Your task to perform on an android device: Is it going to rain tomorrow? Image 0: 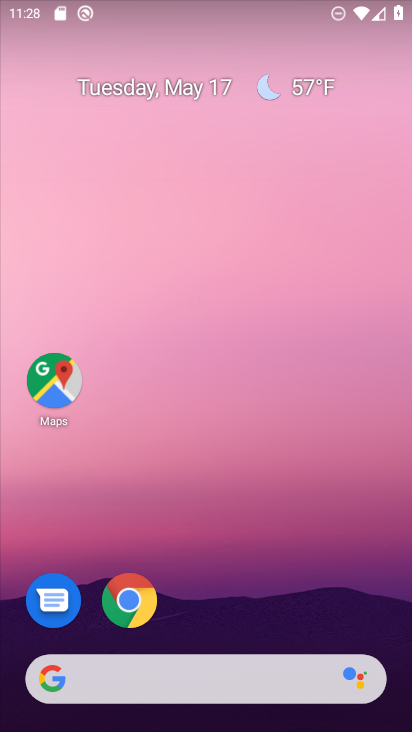
Step 0: drag from (273, 641) to (139, 101)
Your task to perform on an android device: Is it going to rain tomorrow? Image 1: 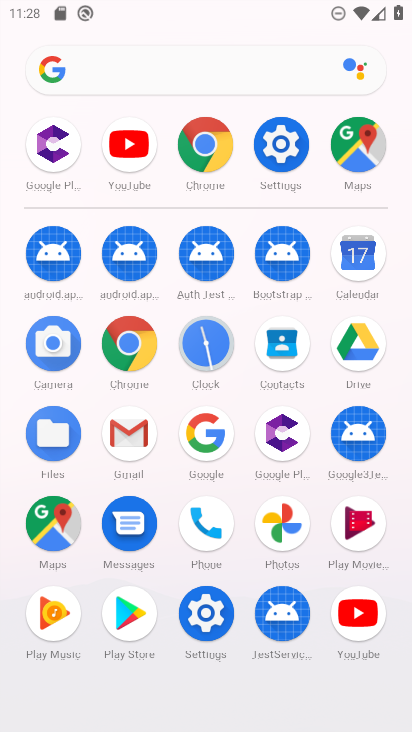
Step 1: press back button
Your task to perform on an android device: Is it going to rain tomorrow? Image 2: 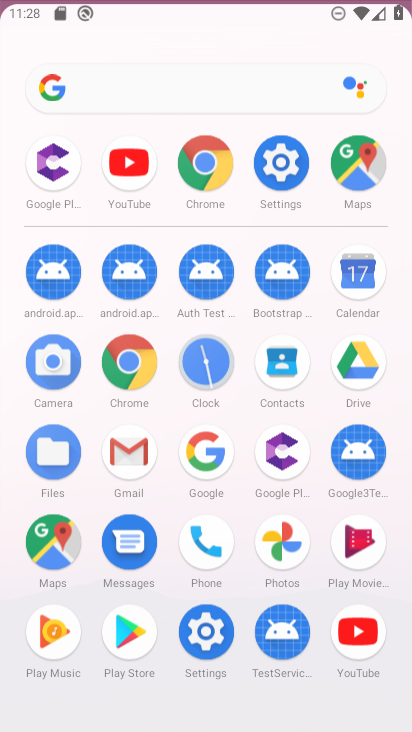
Step 2: press back button
Your task to perform on an android device: Is it going to rain tomorrow? Image 3: 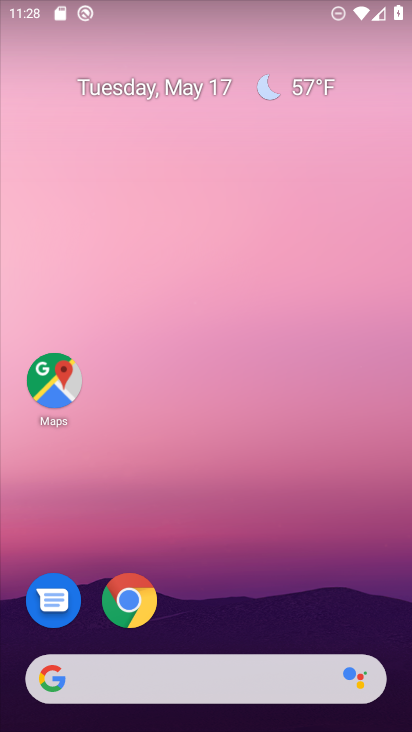
Step 3: press back button
Your task to perform on an android device: Is it going to rain tomorrow? Image 4: 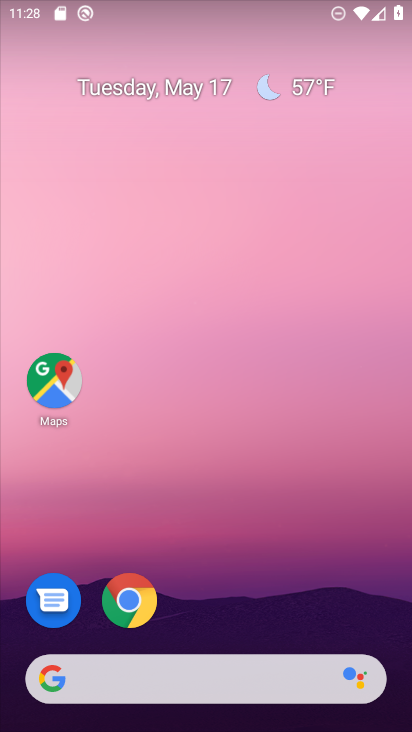
Step 4: drag from (9, 216) to (392, 315)
Your task to perform on an android device: Is it going to rain tomorrow? Image 5: 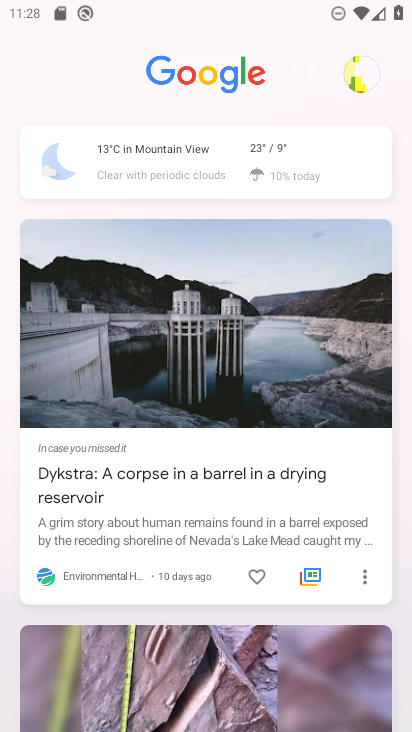
Step 5: drag from (14, 249) to (393, 458)
Your task to perform on an android device: Is it going to rain tomorrow? Image 6: 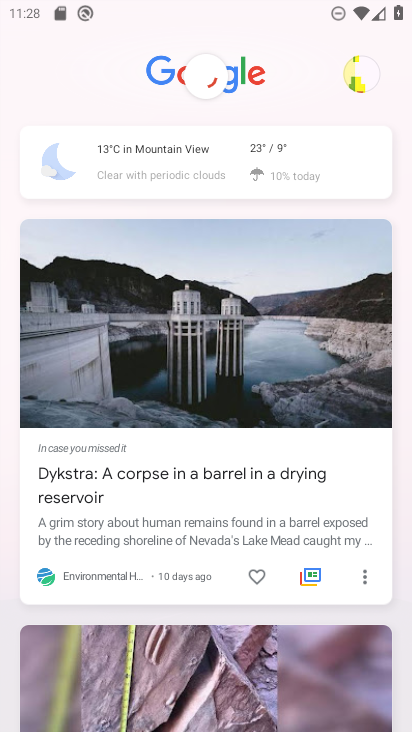
Step 6: click (155, 165)
Your task to perform on an android device: Is it going to rain tomorrow? Image 7: 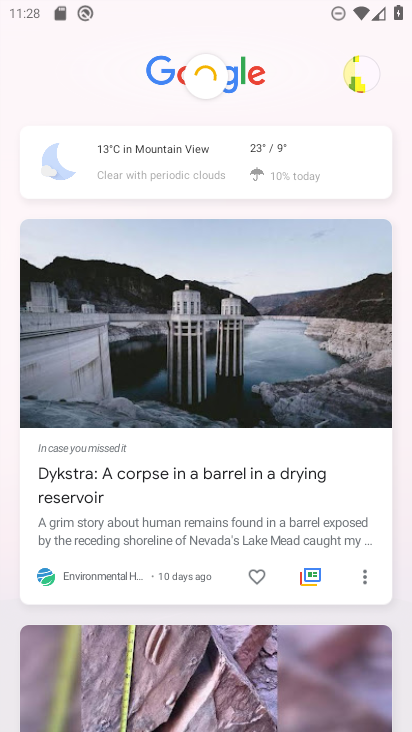
Step 7: click (164, 162)
Your task to perform on an android device: Is it going to rain tomorrow? Image 8: 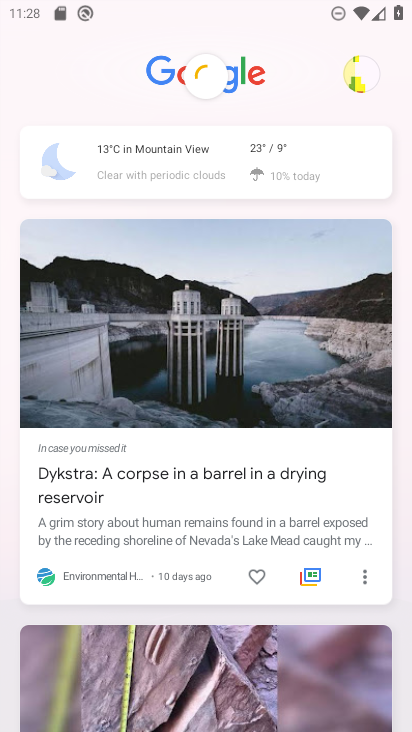
Step 8: click (183, 165)
Your task to perform on an android device: Is it going to rain tomorrow? Image 9: 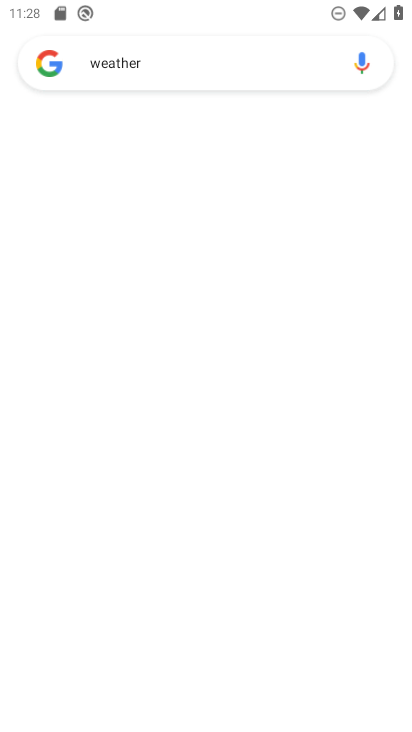
Step 9: click (183, 165)
Your task to perform on an android device: Is it going to rain tomorrow? Image 10: 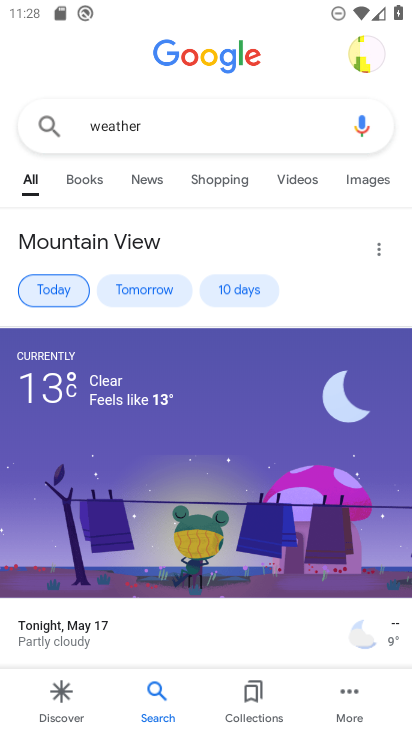
Step 10: task complete